Your task to perform on an android device: Open wifi settings Image 0: 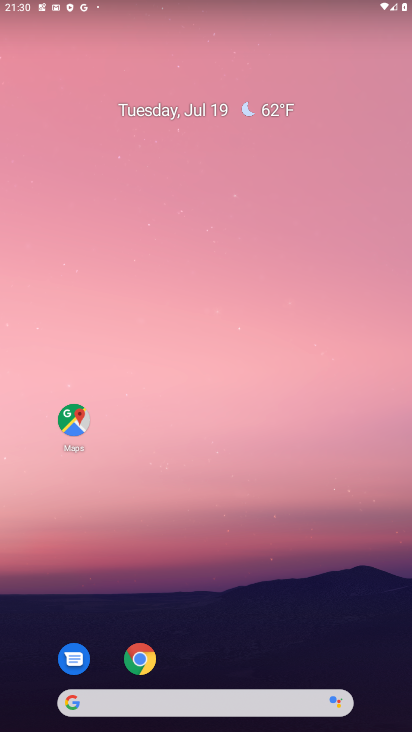
Step 0: press home button
Your task to perform on an android device: Open wifi settings Image 1: 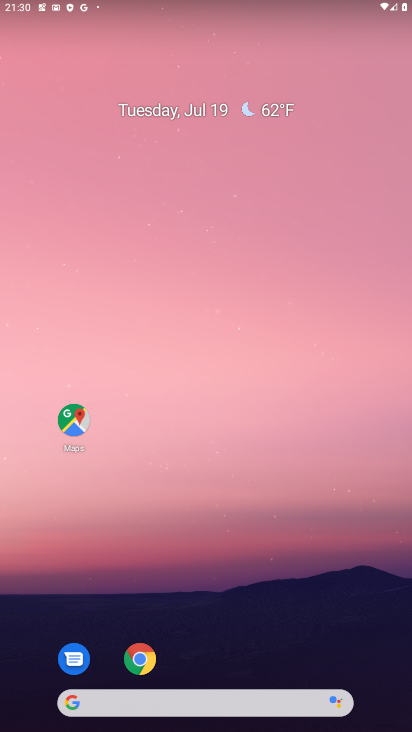
Step 1: drag from (380, 4) to (303, 576)
Your task to perform on an android device: Open wifi settings Image 2: 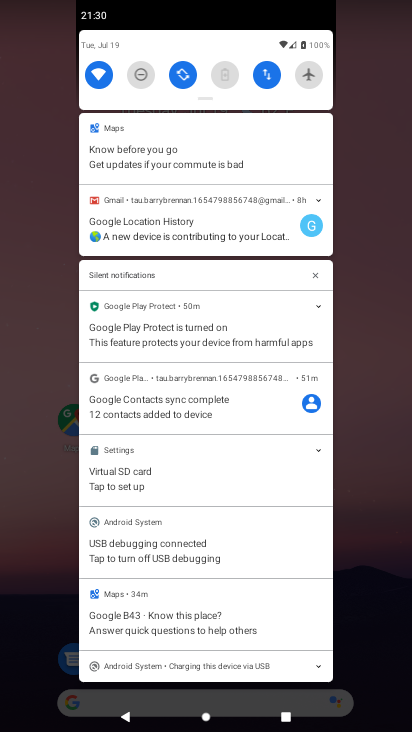
Step 2: click (91, 86)
Your task to perform on an android device: Open wifi settings Image 3: 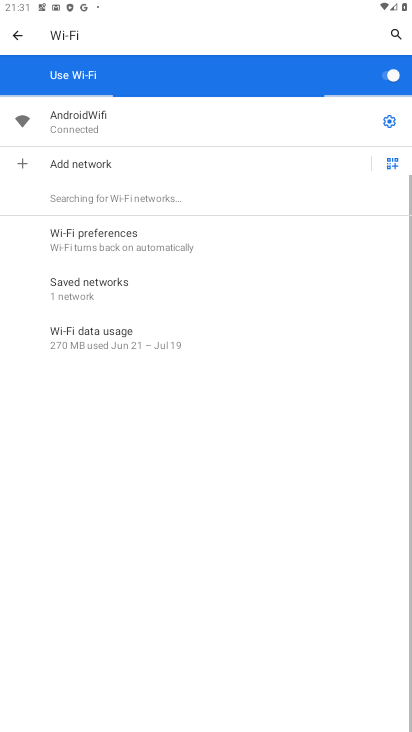
Step 3: task complete